Your task to perform on an android device: open wifi settings Image 0: 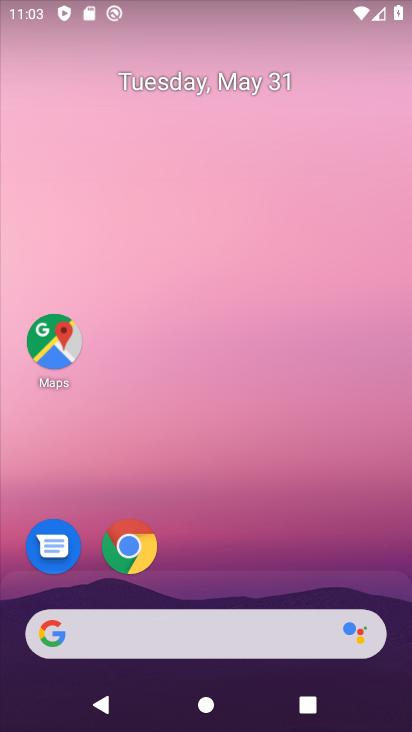
Step 0: drag from (294, 629) to (356, 49)
Your task to perform on an android device: open wifi settings Image 1: 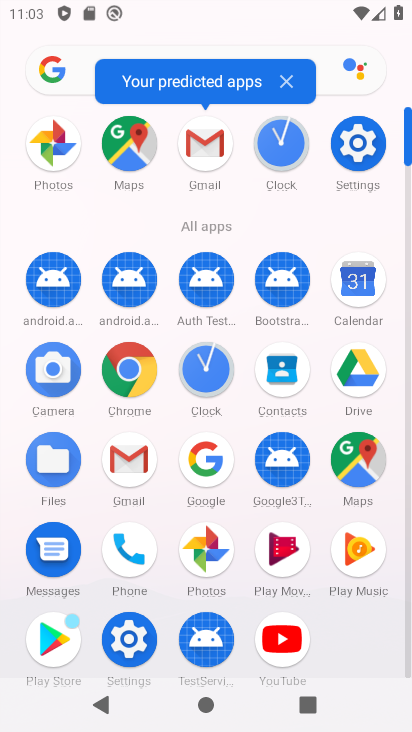
Step 1: click (352, 155)
Your task to perform on an android device: open wifi settings Image 2: 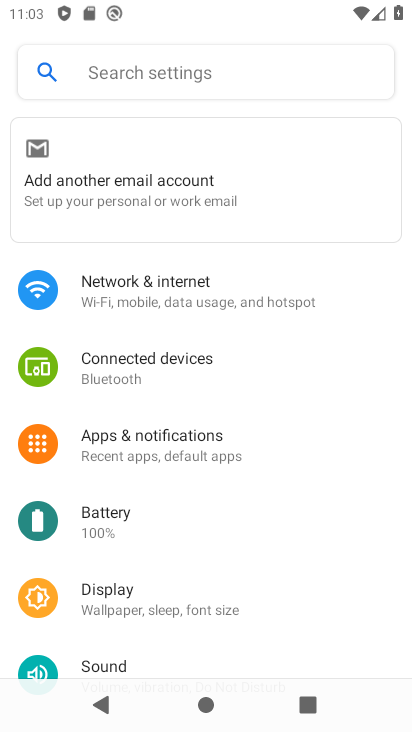
Step 2: click (238, 291)
Your task to perform on an android device: open wifi settings Image 3: 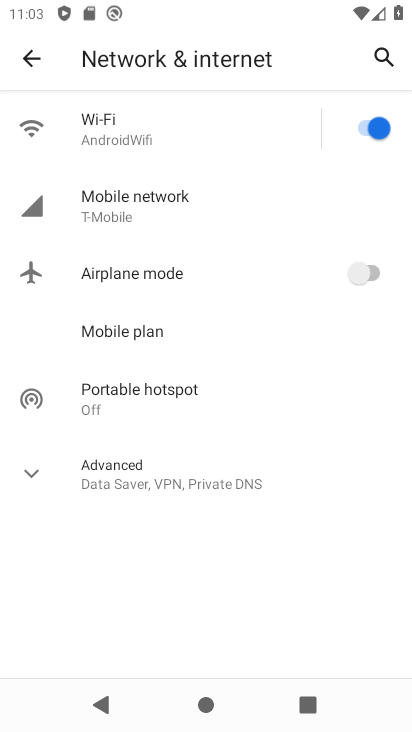
Step 3: click (208, 119)
Your task to perform on an android device: open wifi settings Image 4: 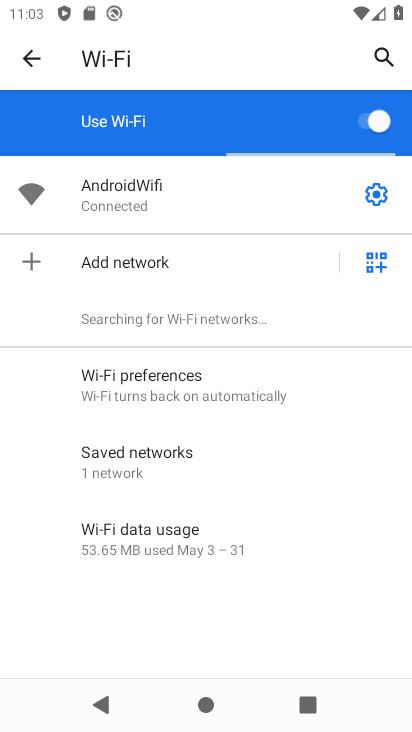
Step 4: task complete